Your task to perform on an android device: empty trash in google photos Image 0: 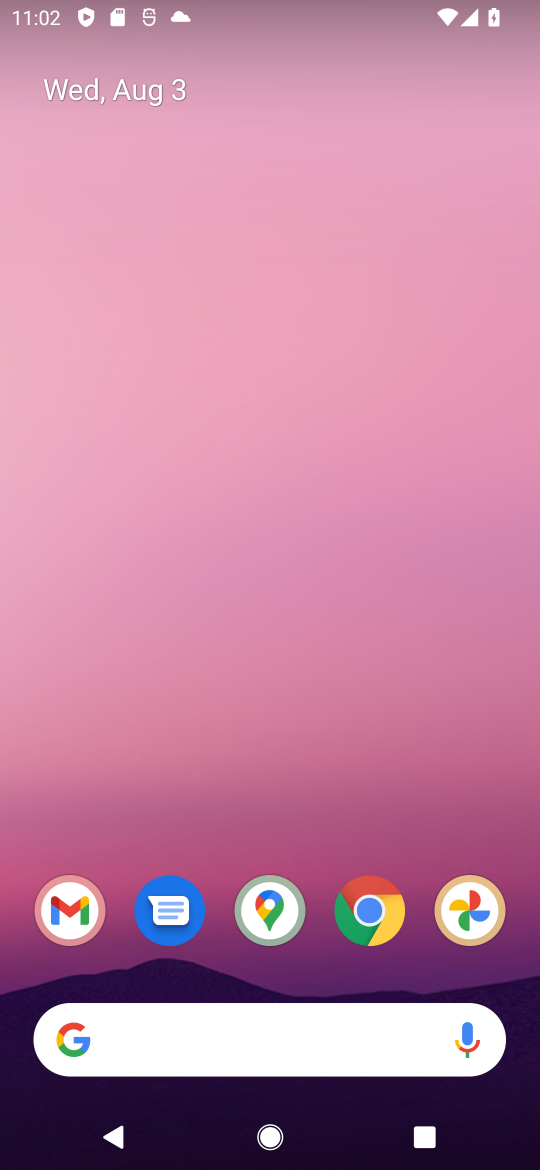
Step 0: drag from (312, 911) to (345, 11)
Your task to perform on an android device: empty trash in google photos Image 1: 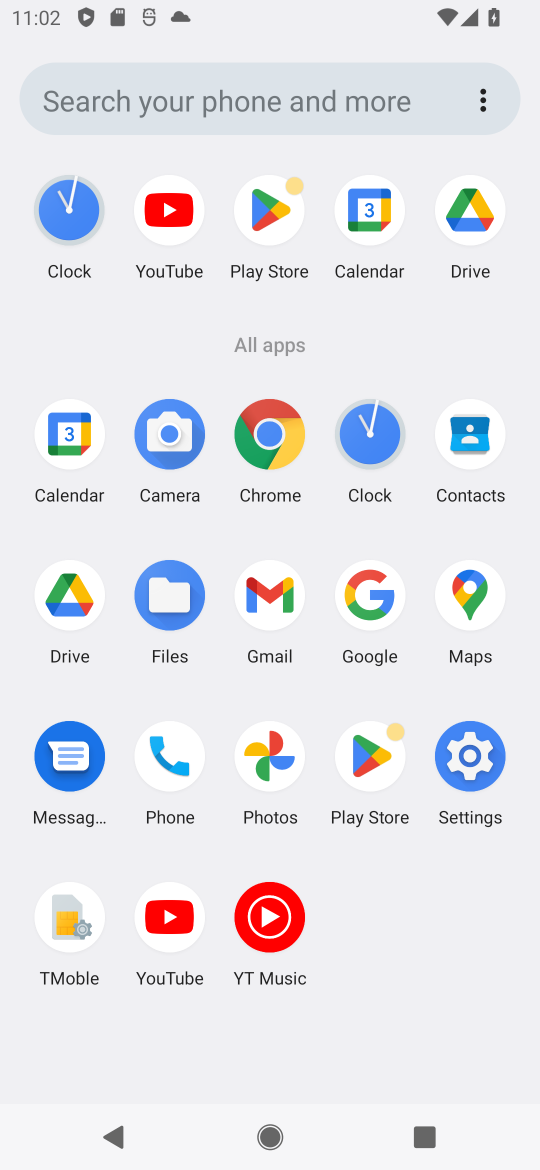
Step 1: click (269, 750)
Your task to perform on an android device: empty trash in google photos Image 2: 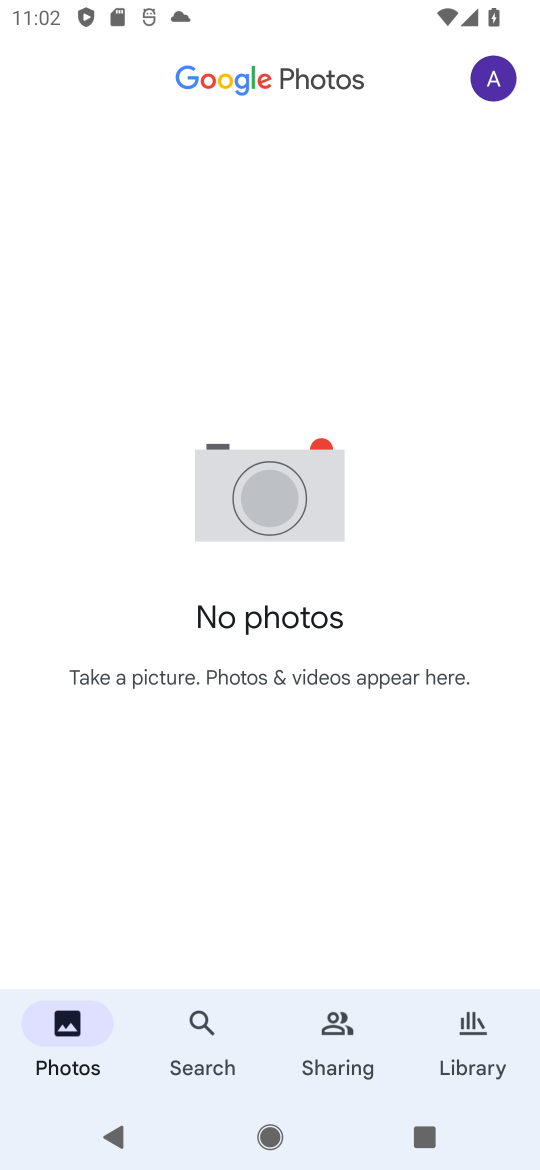
Step 2: click (477, 1021)
Your task to perform on an android device: empty trash in google photos Image 3: 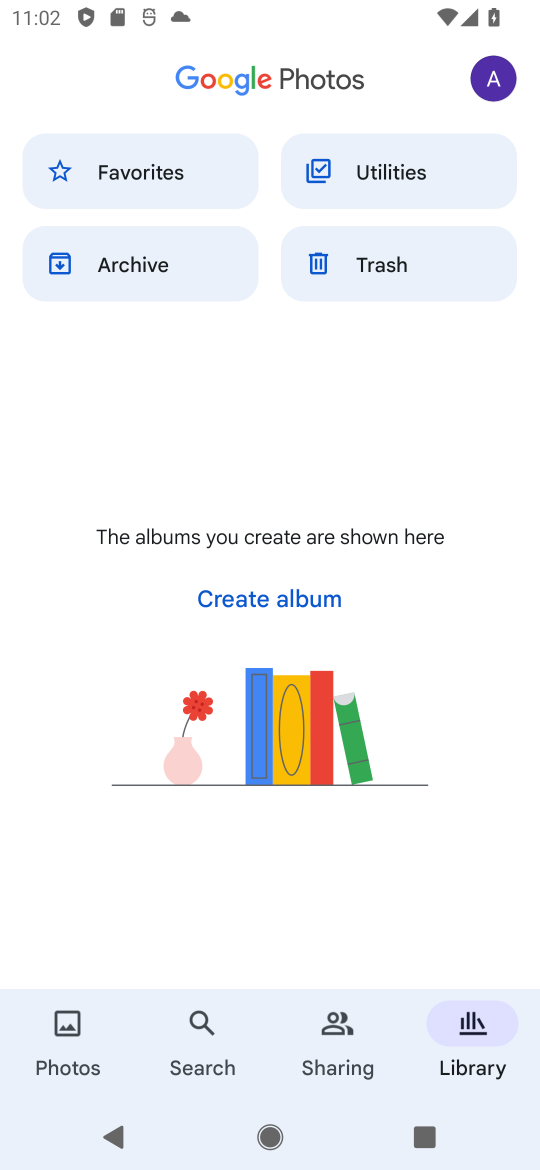
Step 3: click (348, 271)
Your task to perform on an android device: empty trash in google photos Image 4: 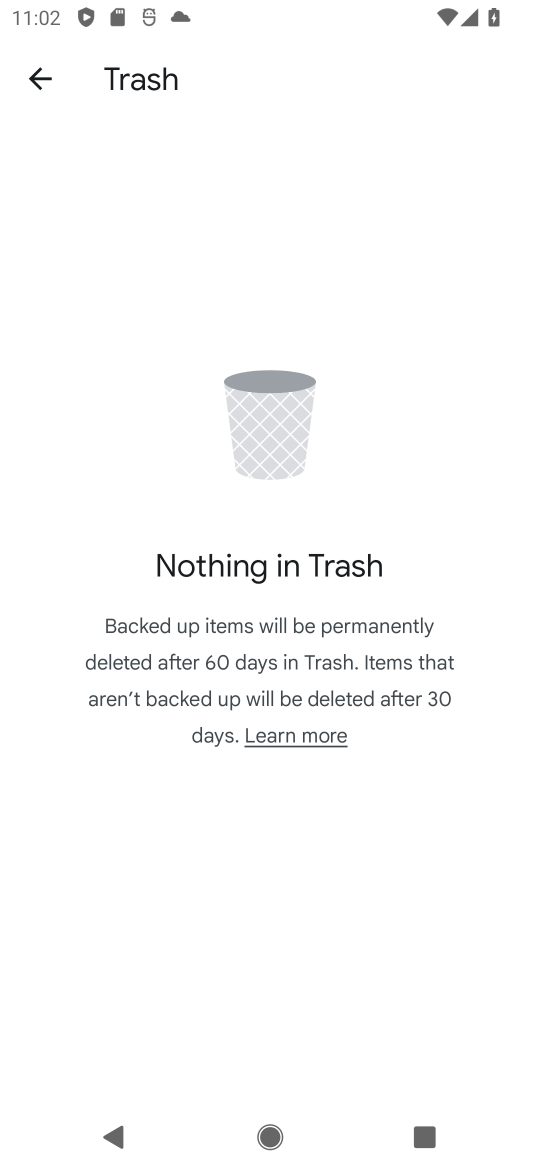
Step 4: task complete